Your task to perform on an android device: Open Wikipedia Image 0: 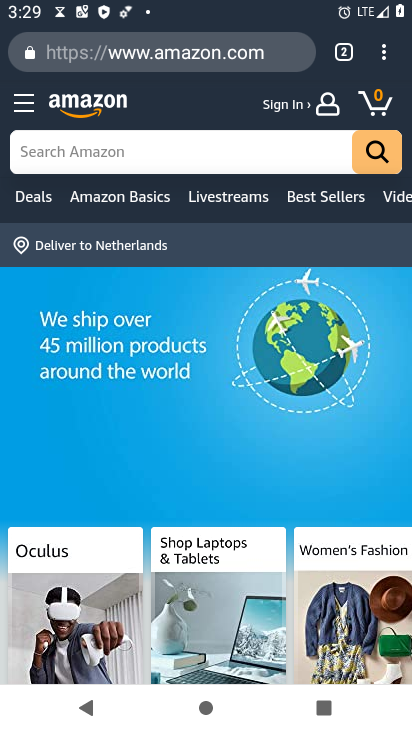
Step 0: press home button
Your task to perform on an android device: Open Wikipedia Image 1: 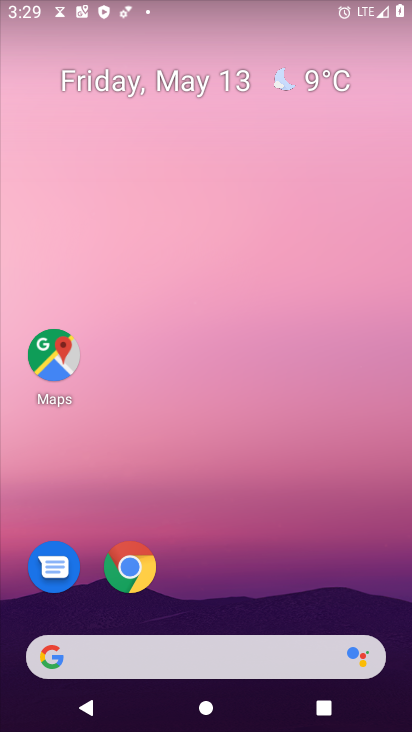
Step 1: click (138, 574)
Your task to perform on an android device: Open Wikipedia Image 2: 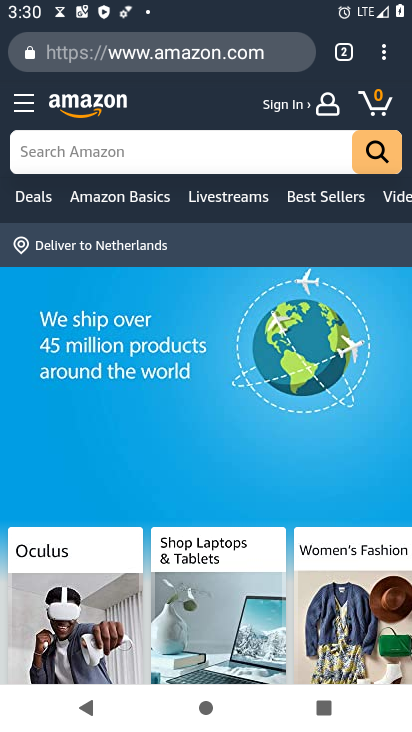
Step 2: click (154, 58)
Your task to perform on an android device: Open Wikipedia Image 3: 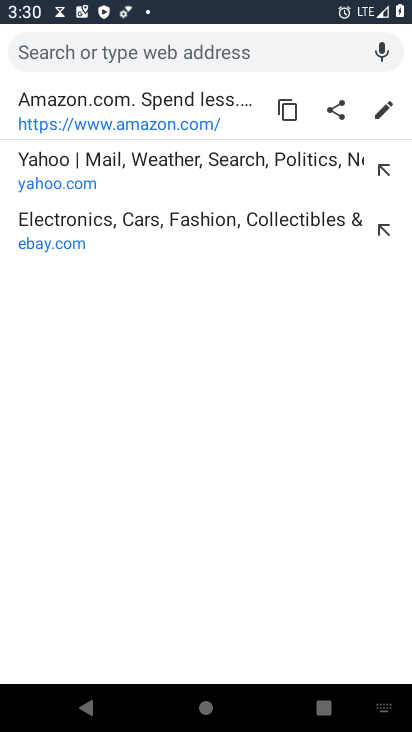
Step 3: type "wikipedia"
Your task to perform on an android device: Open Wikipedia Image 4: 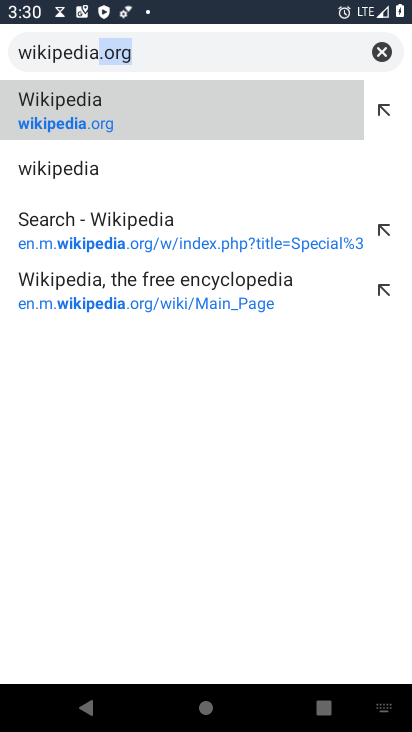
Step 4: click (60, 174)
Your task to perform on an android device: Open Wikipedia Image 5: 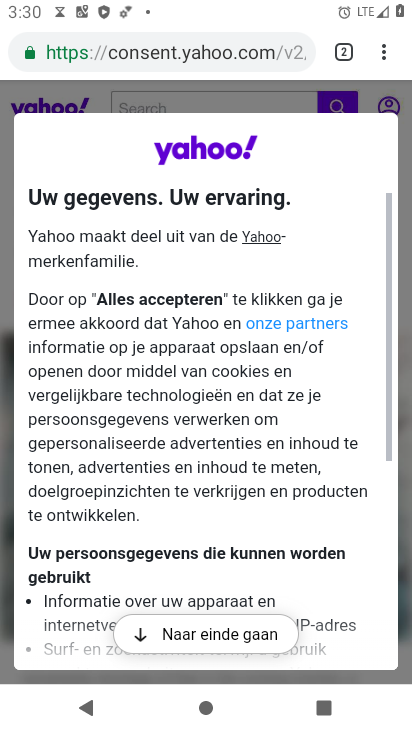
Step 5: click (162, 45)
Your task to perform on an android device: Open Wikipedia Image 6: 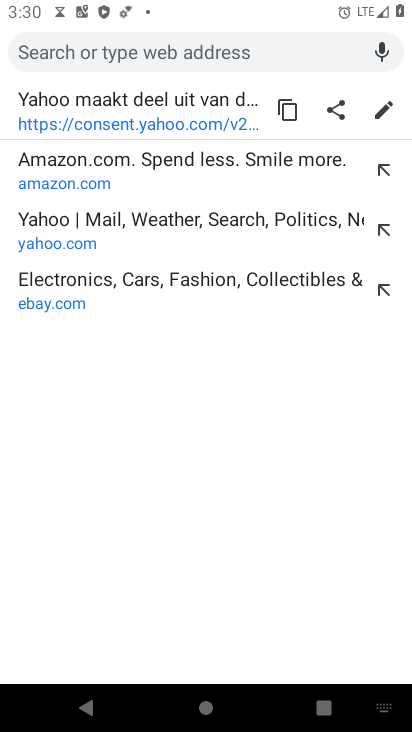
Step 6: type "wikipedia"
Your task to perform on an android device: Open Wikipedia Image 7: 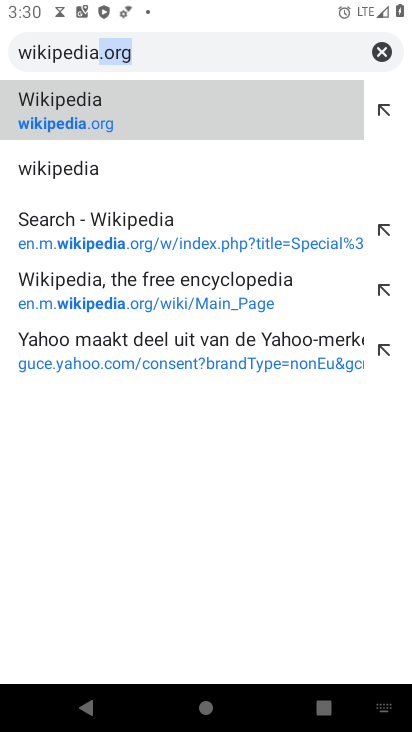
Step 7: click (83, 128)
Your task to perform on an android device: Open Wikipedia Image 8: 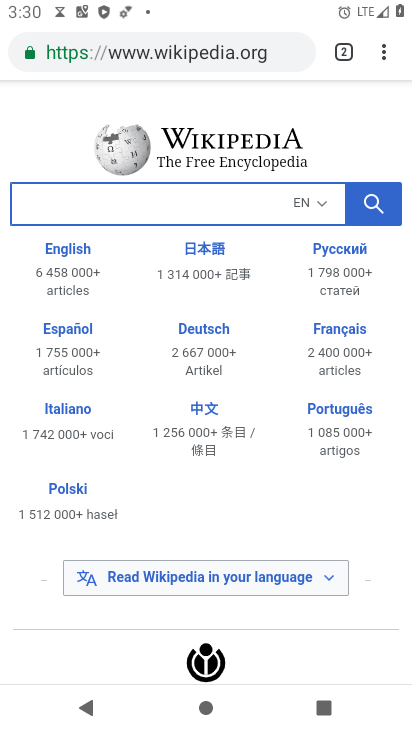
Step 8: task complete